Your task to perform on an android device: toggle wifi Image 0: 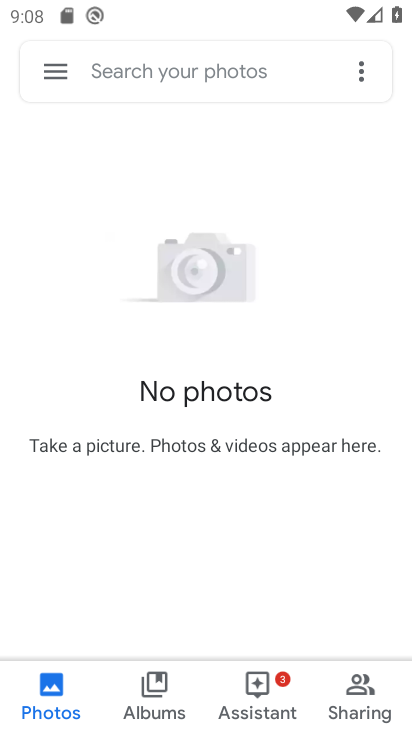
Step 0: press home button
Your task to perform on an android device: toggle wifi Image 1: 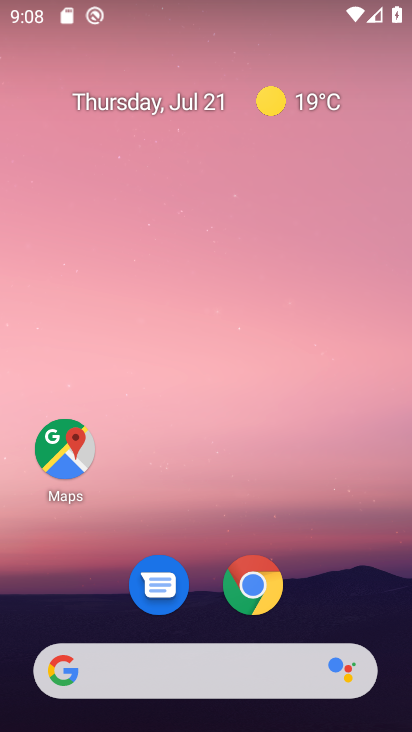
Step 1: drag from (191, 468) to (265, 35)
Your task to perform on an android device: toggle wifi Image 2: 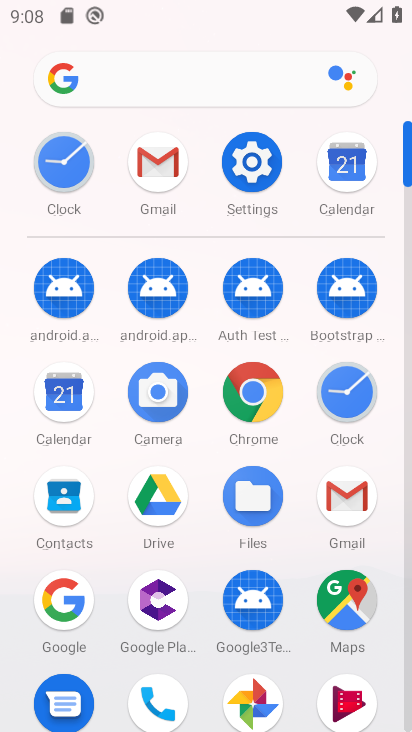
Step 2: click (256, 166)
Your task to perform on an android device: toggle wifi Image 3: 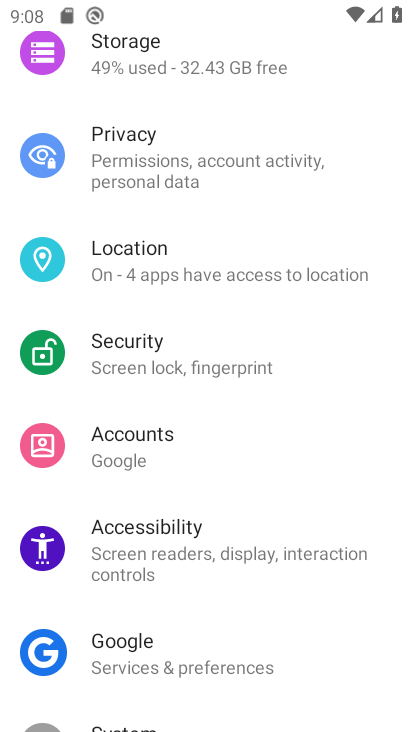
Step 3: drag from (246, 233) to (253, 593)
Your task to perform on an android device: toggle wifi Image 4: 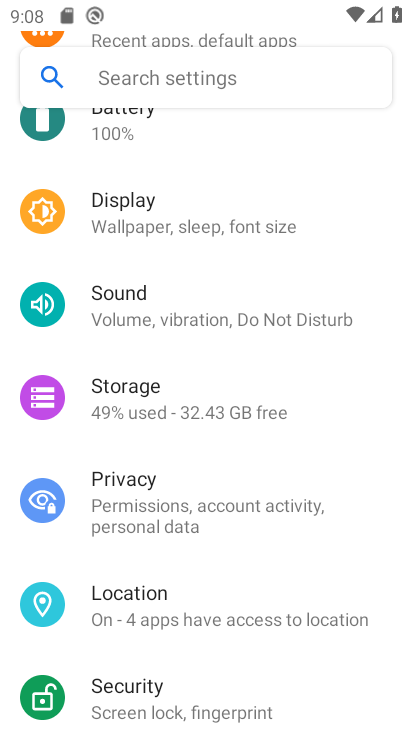
Step 4: drag from (232, 180) to (277, 602)
Your task to perform on an android device: toggle wifi Image 5: 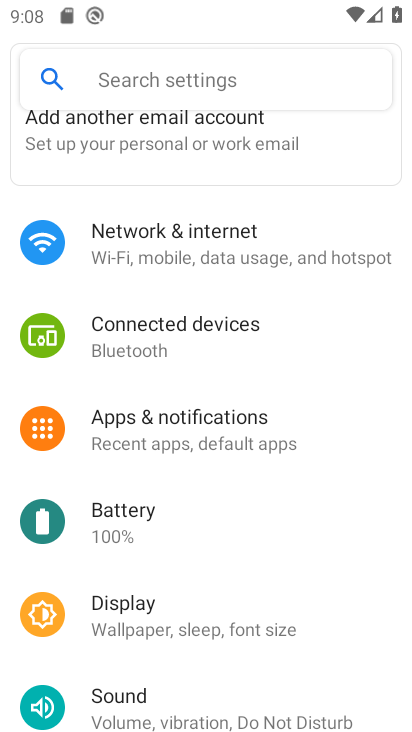
Step 5: click (194, 248)
Your task to perform on an android device: toggle wifi Image 6: 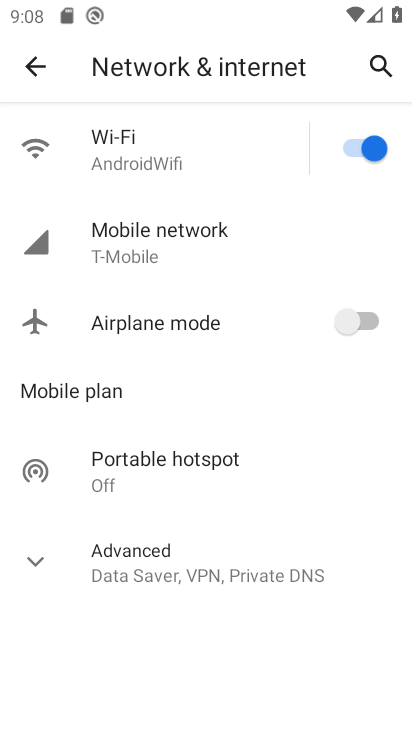
Step 6: click (361, 143)
Your task to perform on an android device: toggle wifi Image 7: 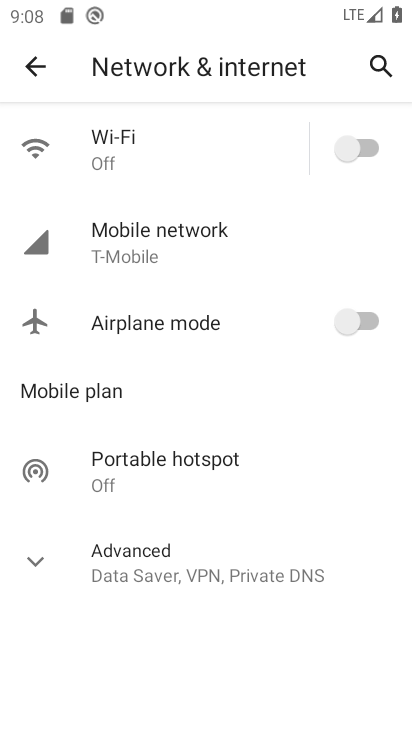
Step 7: task complete